Your task to perform on an android device: toggle airplane mode Image 0: 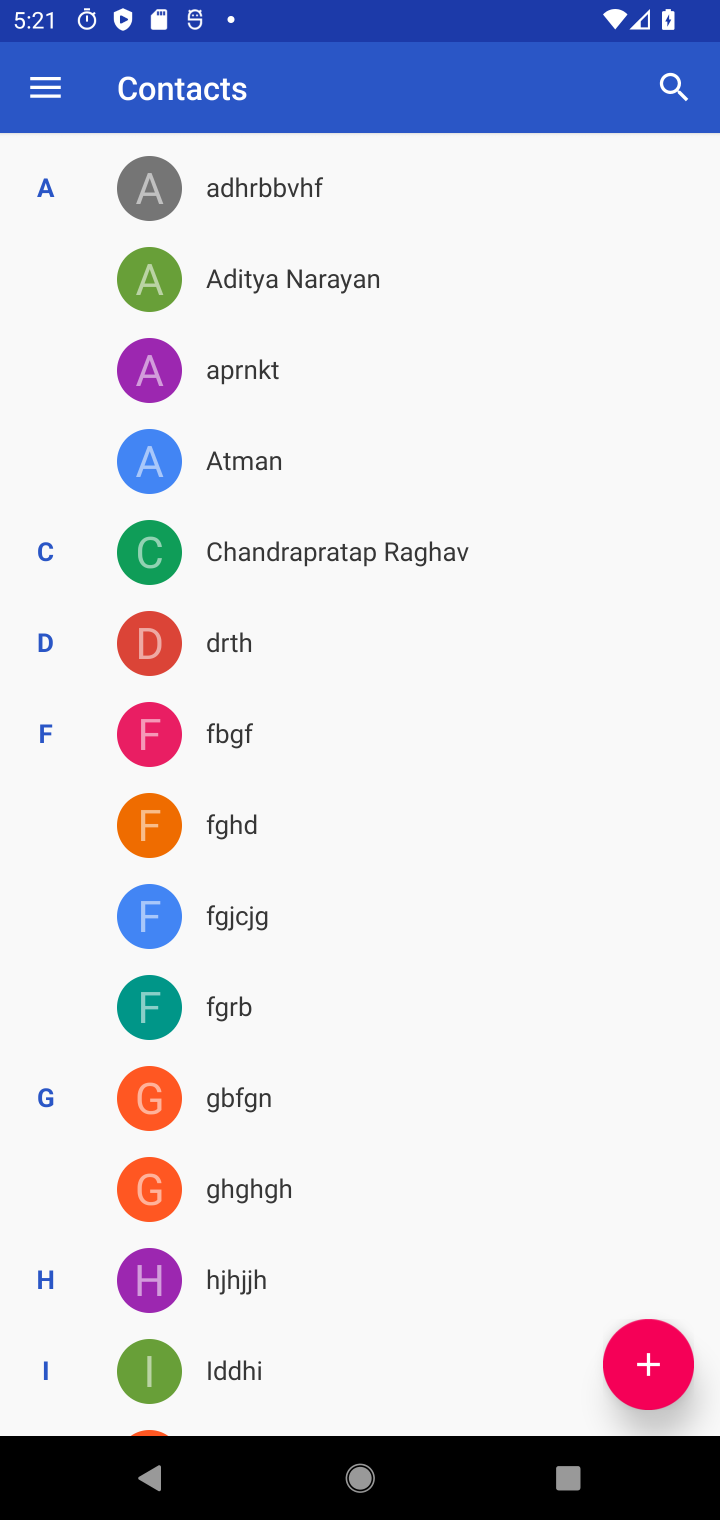
Step 0: press home button
Your task to perform on an android device: toggle airplane mode Image 1: 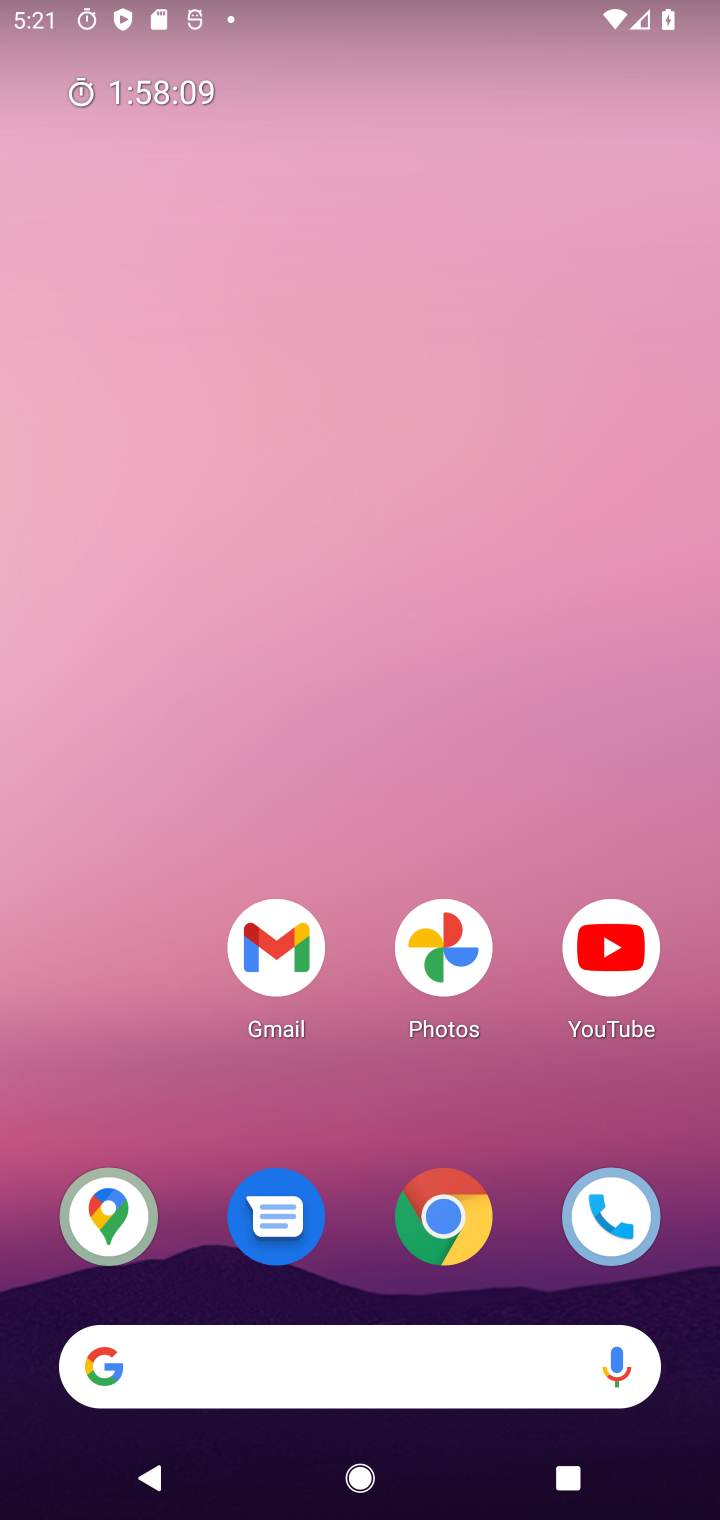
Step 1: drag from (612, 189) to (538, 1141)
Your task to perform on an android device: toggle airplane mode Image 2: 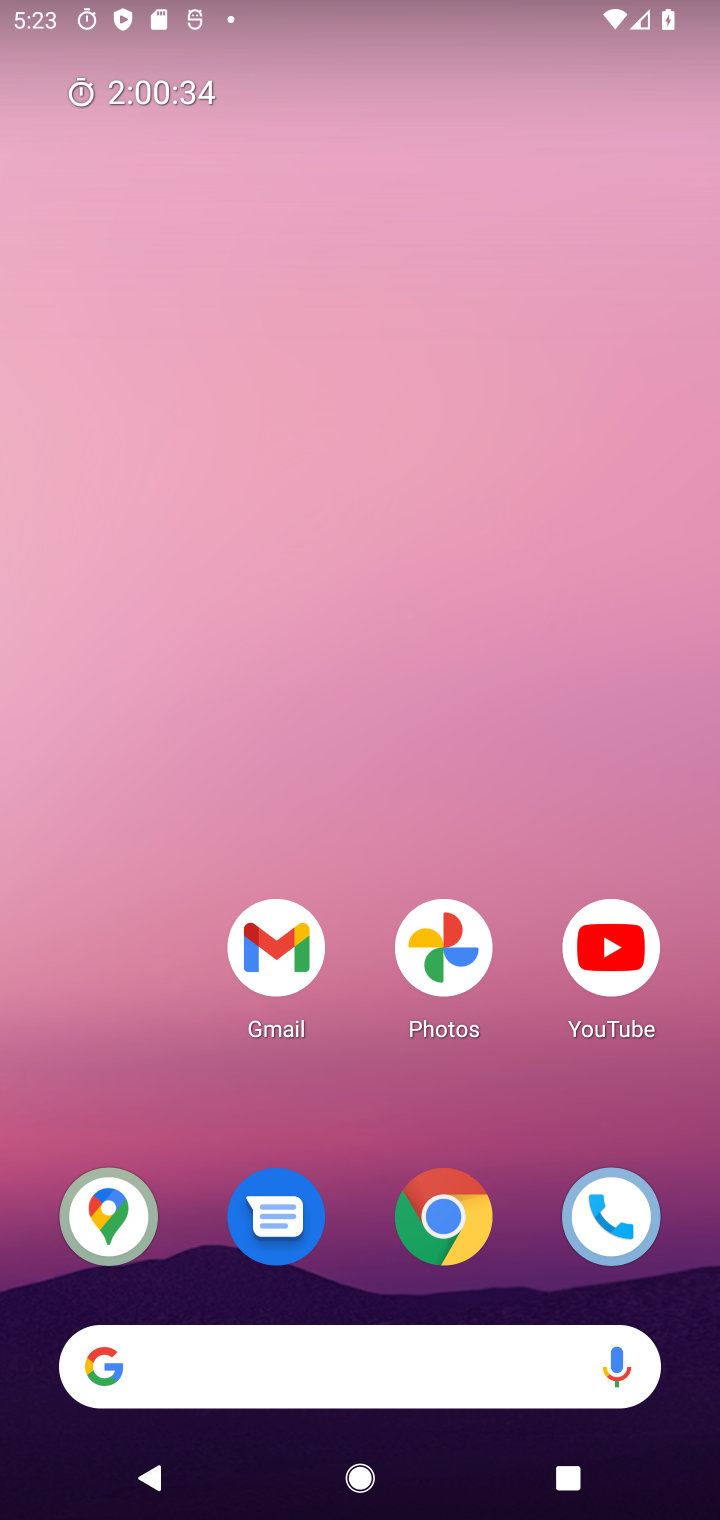
Step 2: drag from (168, 1022) to (493, 156)
Your task to perform on an android device: toggle airplane mode Image 3: 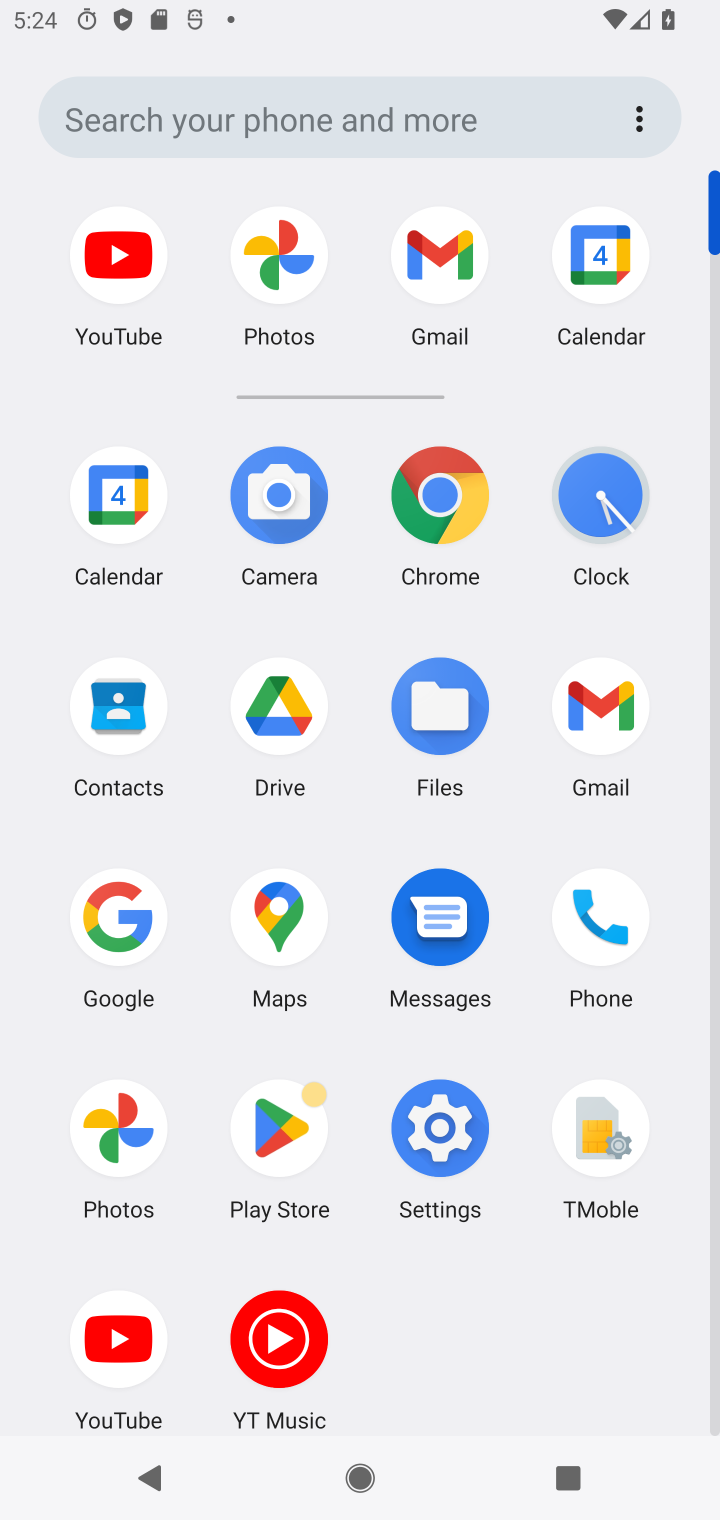
Step 3: click (414, 1165)
Your task to perform on an android device: toggle airplane mode Image 4: 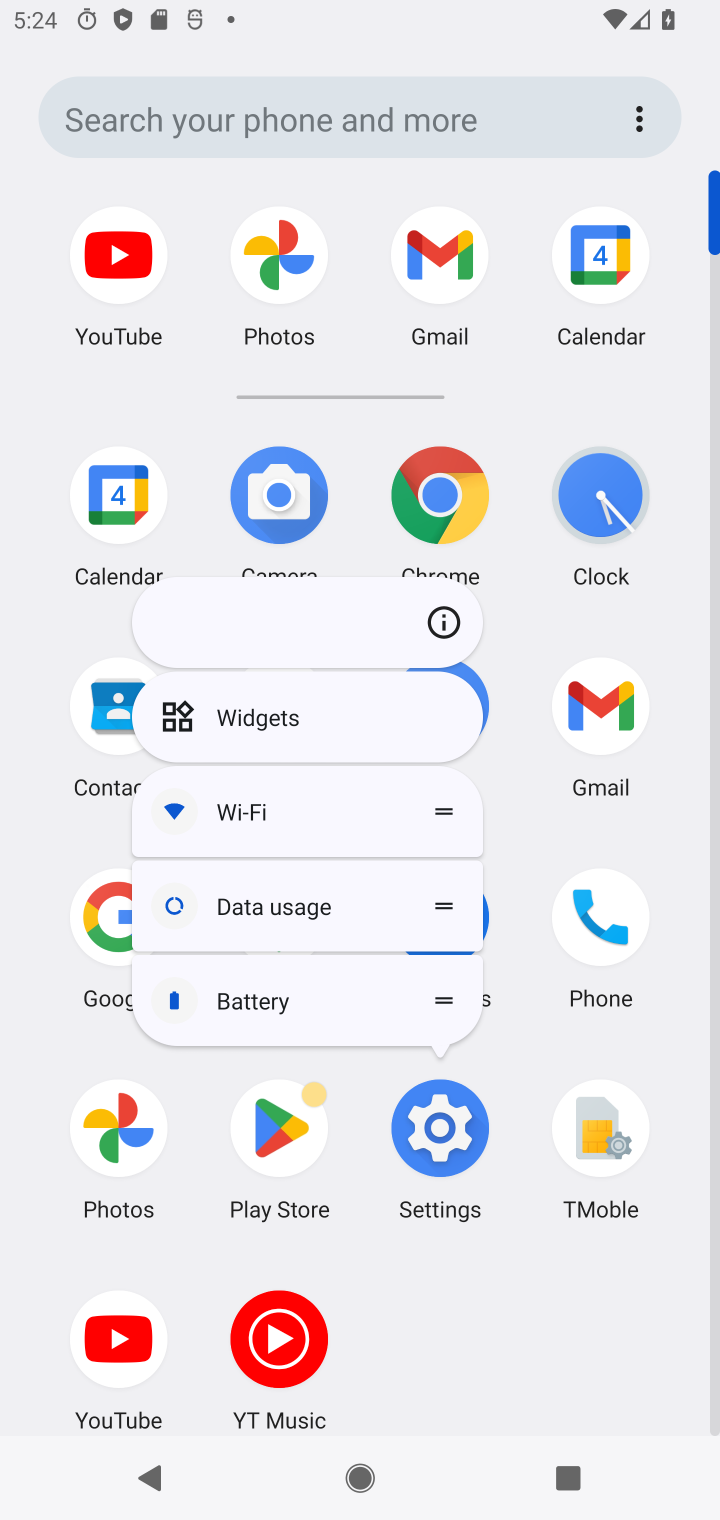
Step 4: click (437, 1127)
Your task to perform on an android device: toggle airplane mode Image 5: 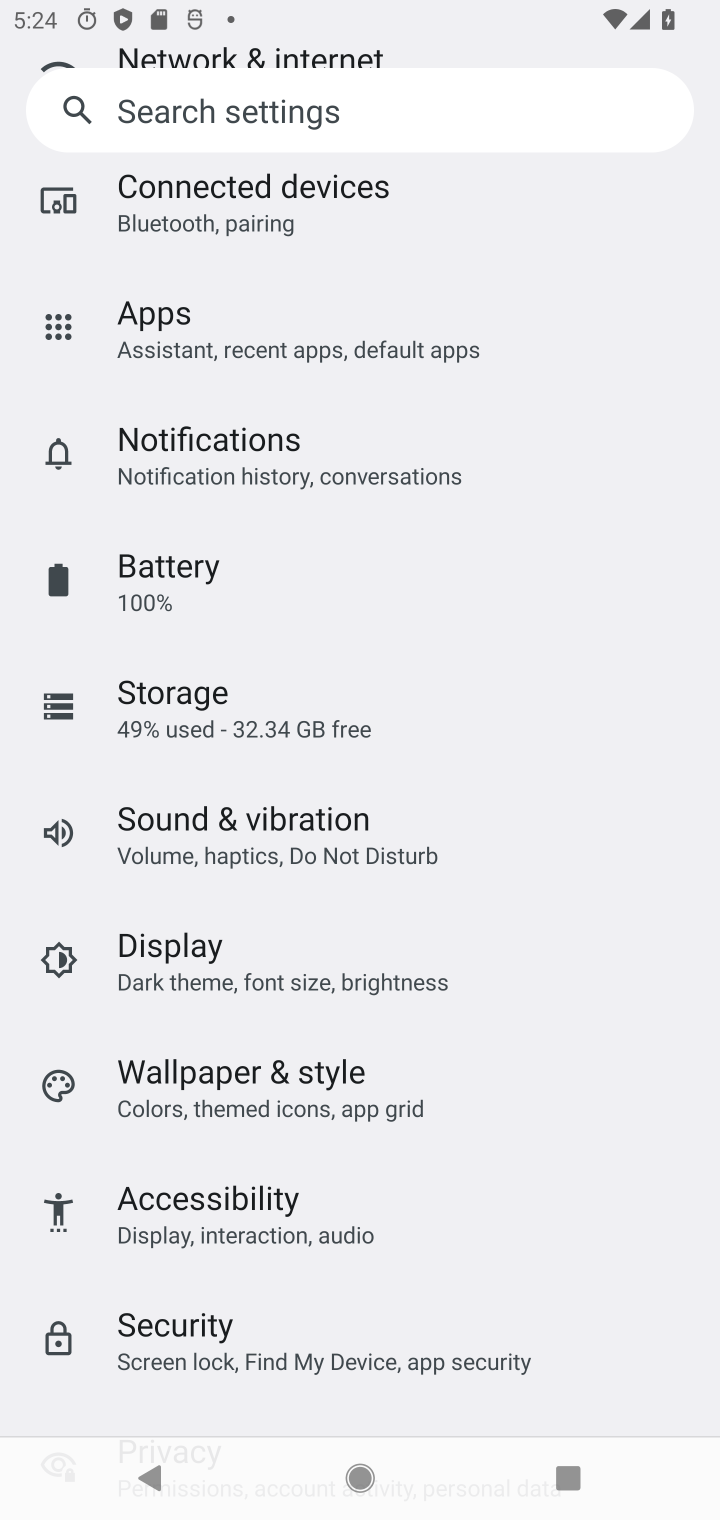
Step 5: drag from (272, 270) to (0, 906)
Your task to perform on an android device: toggle airplane mode Image 6: 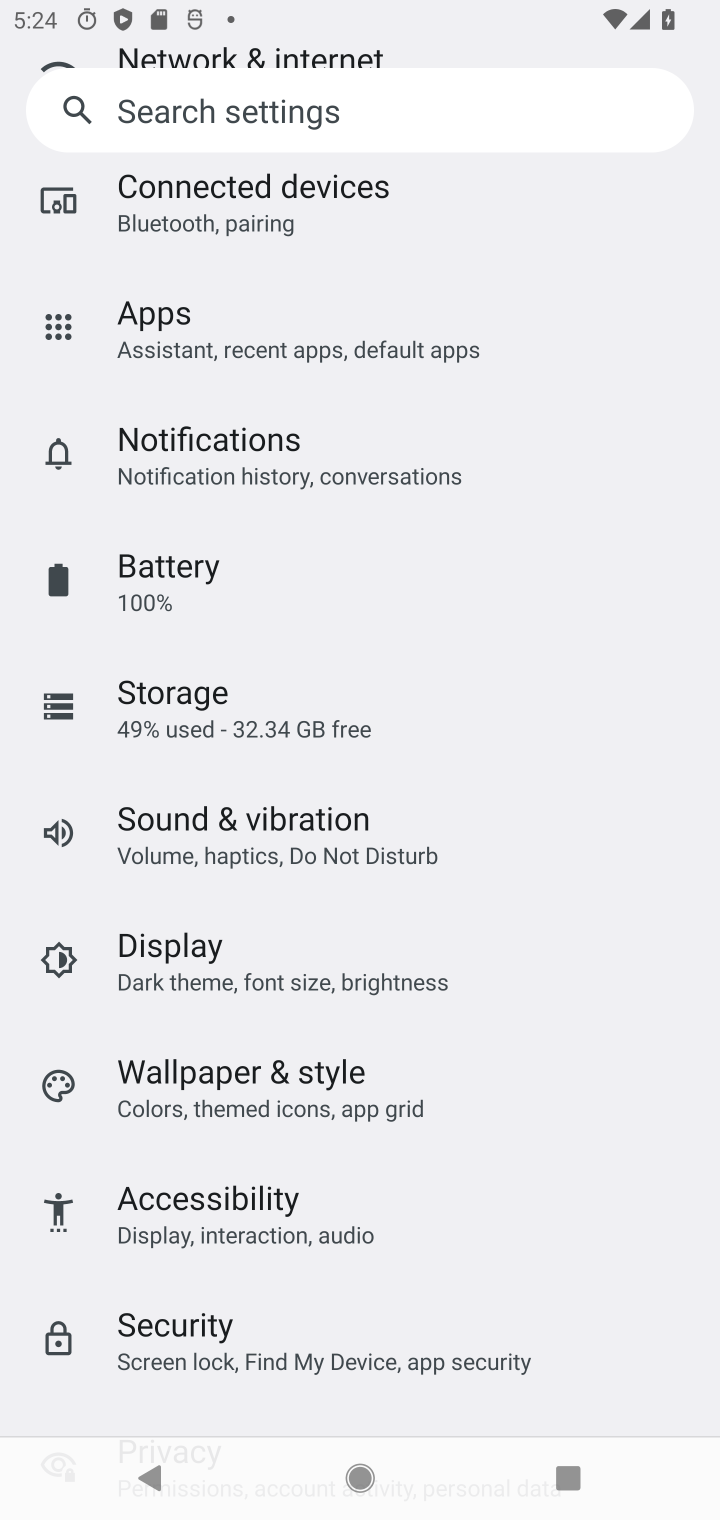
Step 6: drag from (481, 253) to (93, 1085)
Your task to perform on an android device: toggle airplane mode Image 7: 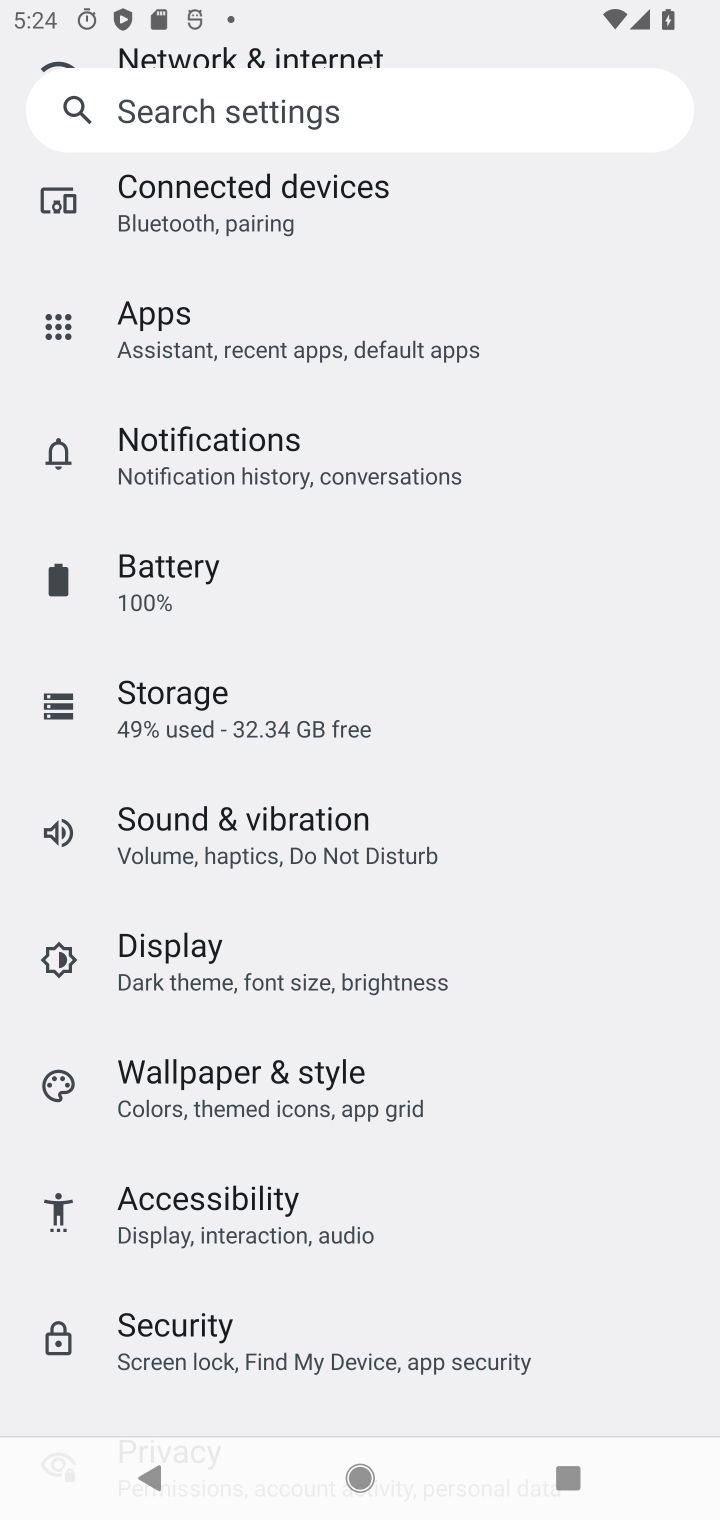
Step 7: drag from (67, 290) to (66, 966)
Your task to perform on an android device: toggle airplane mode Image 8: 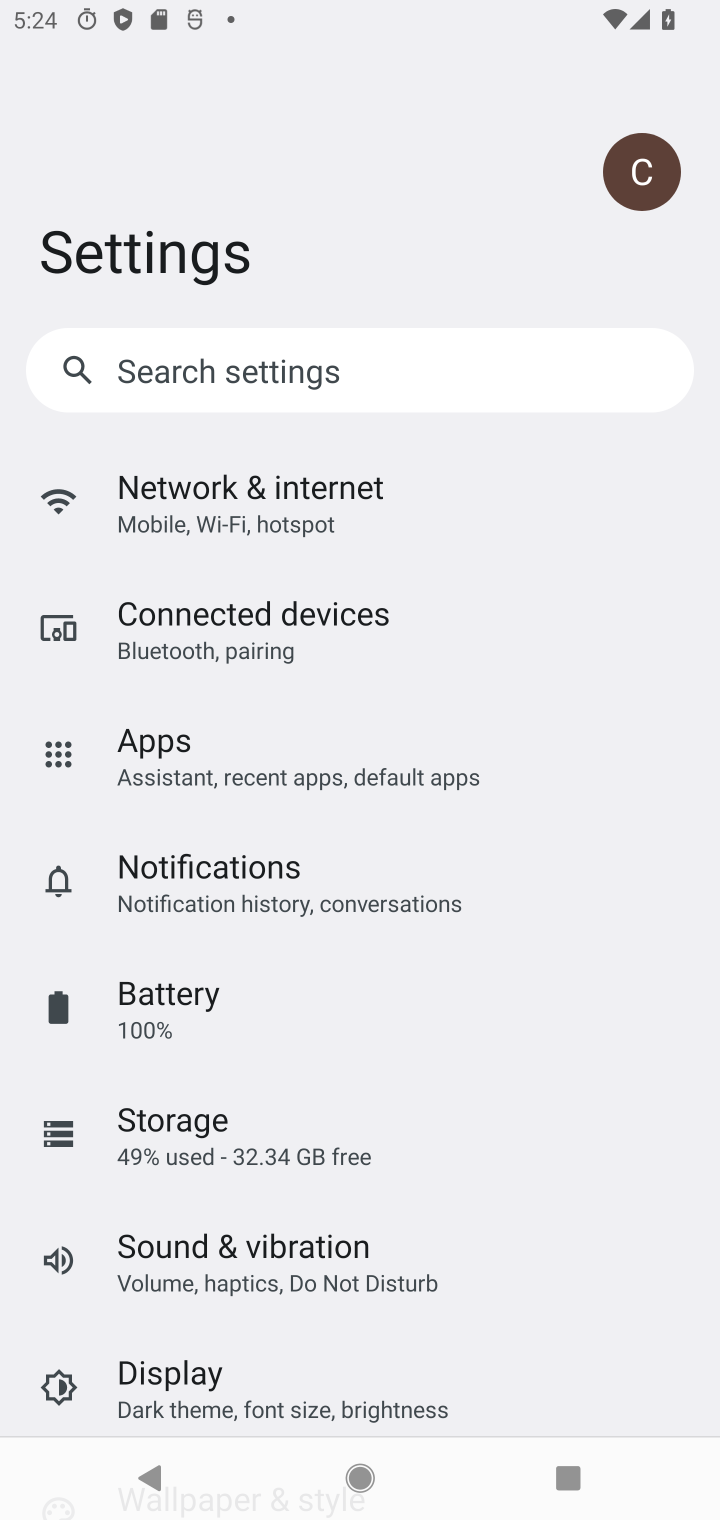
Step 8: click (357, 520)
Your task to perform on an android device: toggle airplane mode Image 9: 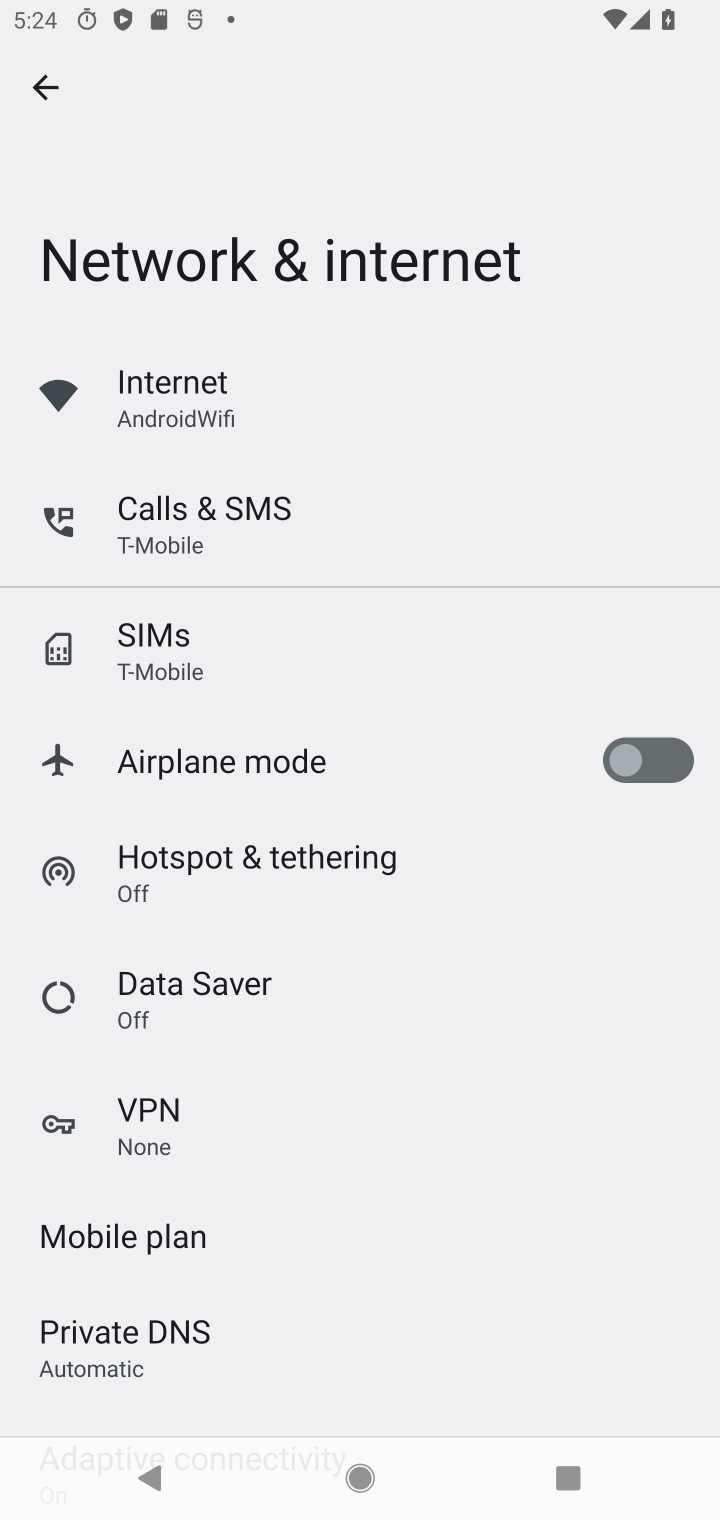
Step 9: click (614, 759)
Your task to perform on an android device: toggle airplane mode Image 10: 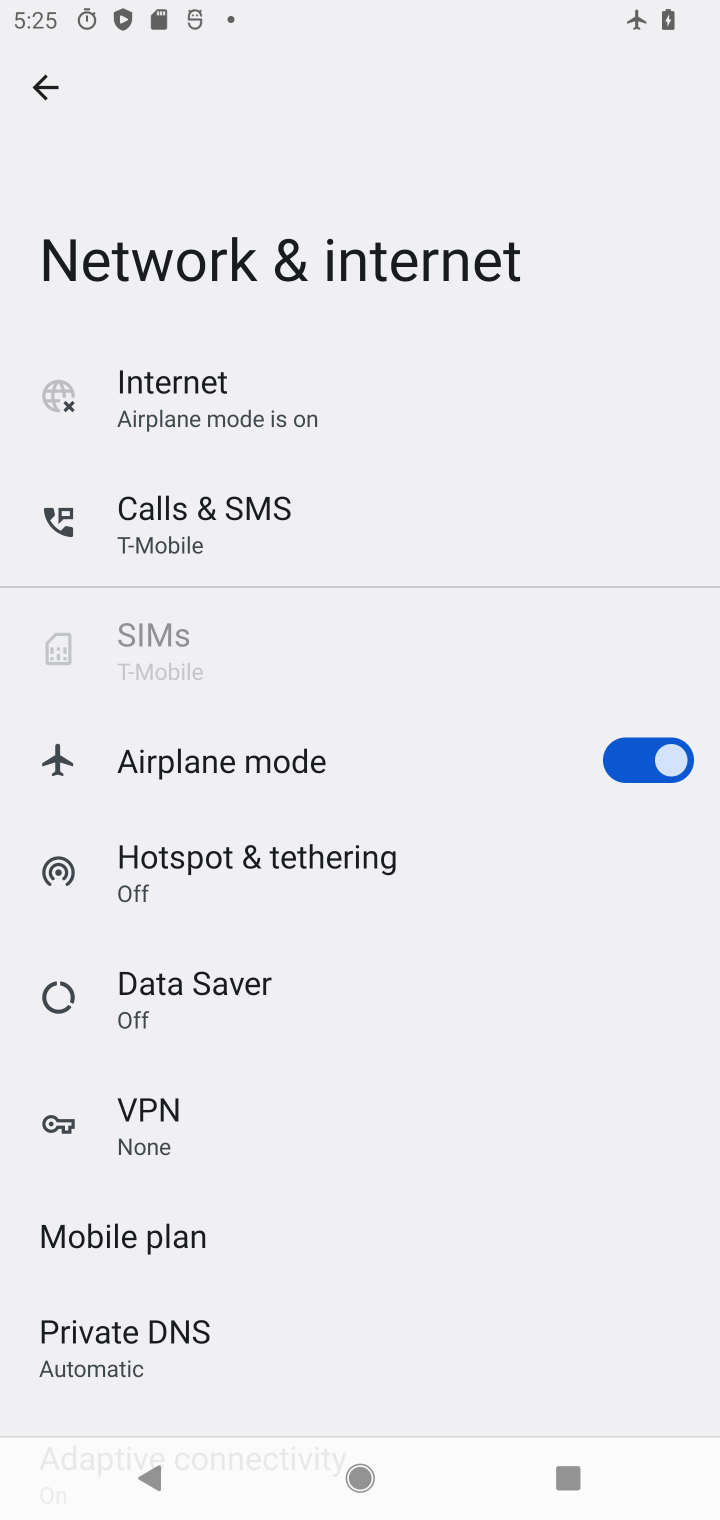
Step 10: task complete